Your task to perform on an android device: star an email in the gmail app Image 0: 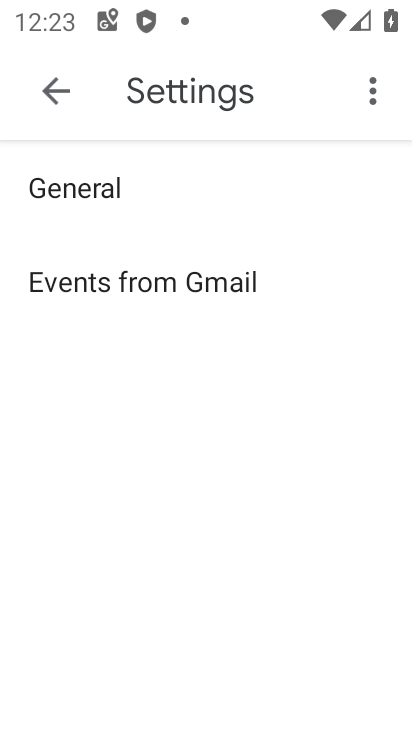
Step 0: press home button
Your task to perform on an android device: star an email in the gmail app Image 1: 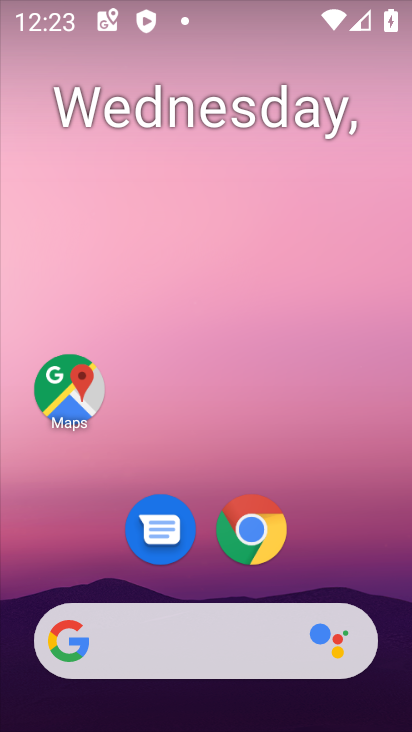
Step 1: drag from (377, 595) to (286, 148)
Your task to perform on an android device: star an email in the gmail app Image 2: 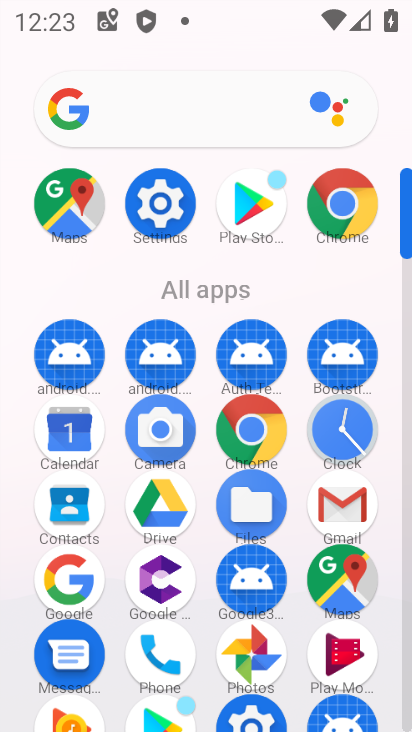
Step 2: click (346, 507)
Your task to perform on an android device: star an email in the gmail app Image 3: 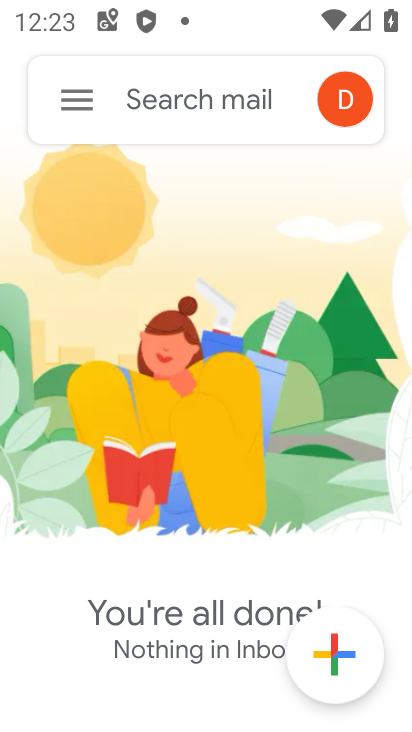
Step 3: click (83, 109)
Your task to perform on an android device: star an email in the gmail app Image 4: 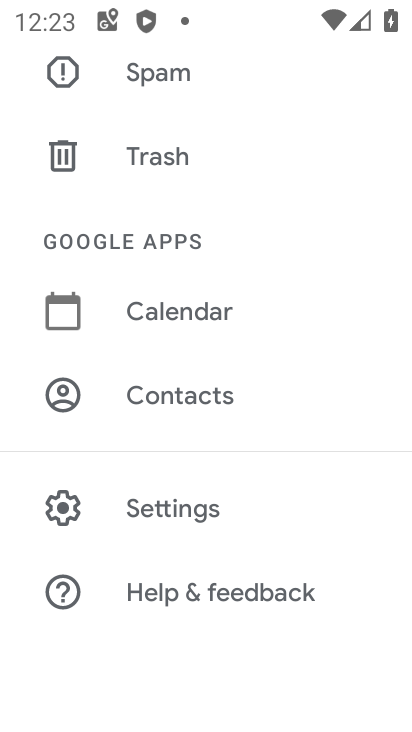
Step 4: drag from (209, 123) to (219, 408)
Your task to perform on an android device: star an email in the gmail app Image 5: 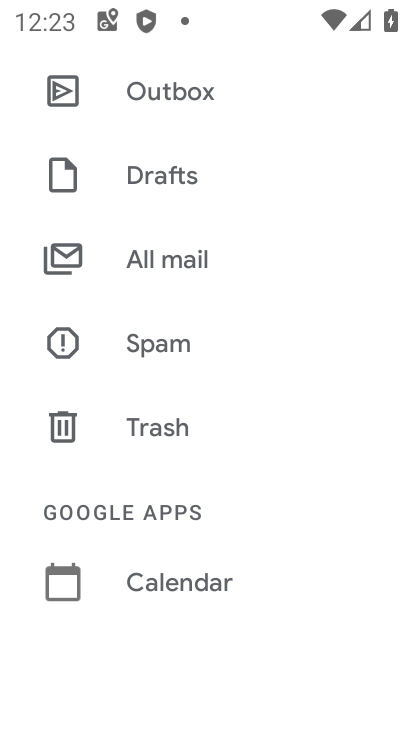
Step 5: click (165, 259)
Your task to perform on an android device: star an email in the gmail app Image 6: 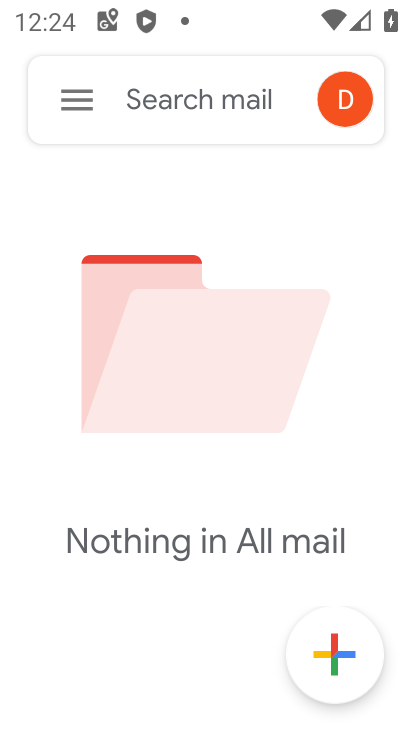
Step 6: task complete